Your task to perform on an android device: Search for sushi restaurants on Maps Image 0: 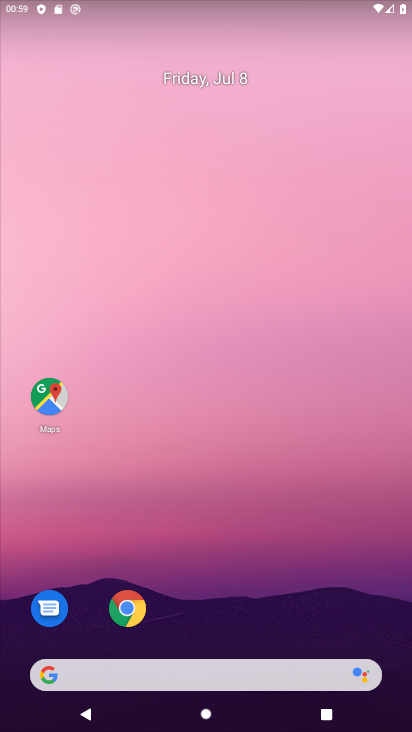
Step 0: press home button
Your task to perform on an android device: Search for sushi restaurants on Maps Image 1: 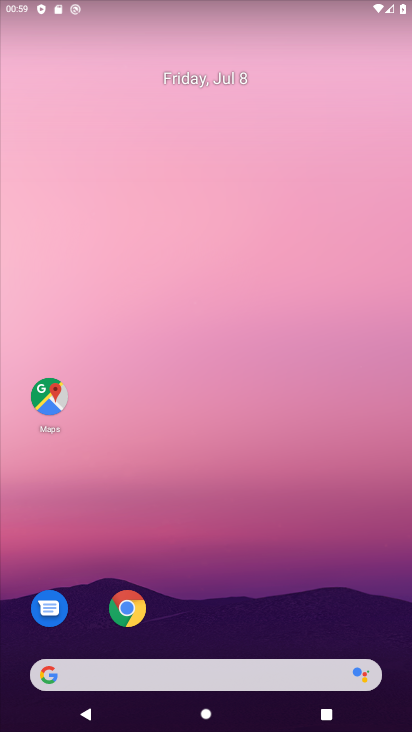
Step 1: drag from (257, 655) to (170, 105)
Your task to perform on an android device: Search for sushi restaurants on Maps Image 2: 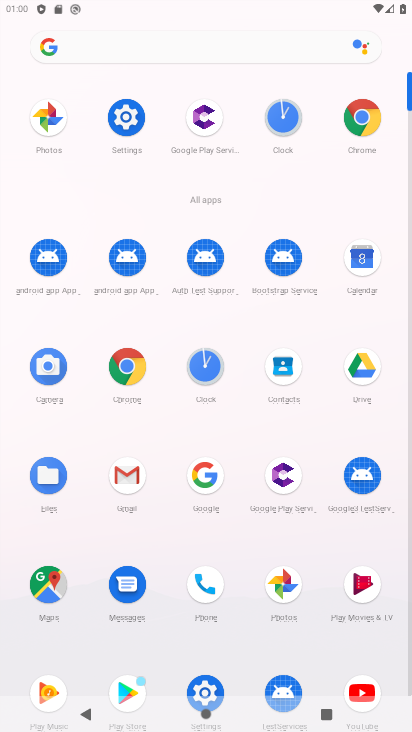
Step 2: click (41, 572)
Your task to perform on an android device: Search for sushi restaurants on Maps Image 3: 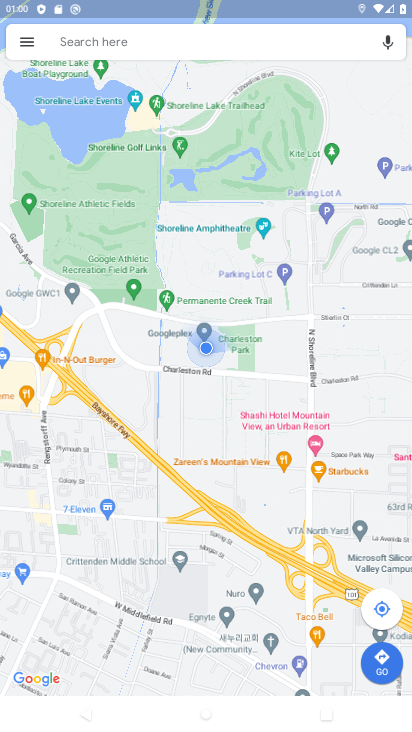
Step 3: click (181, 46)
Your task to perform on an android device: Search for sushi restaurants on Maps Image 4: 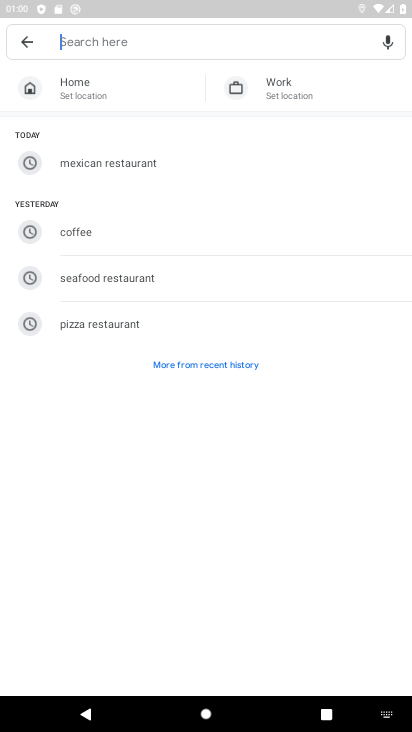
Step 4: type "sushi restaurants"
Your task to perform on an android device: Search for sushi restaurants on Maps Image 5: 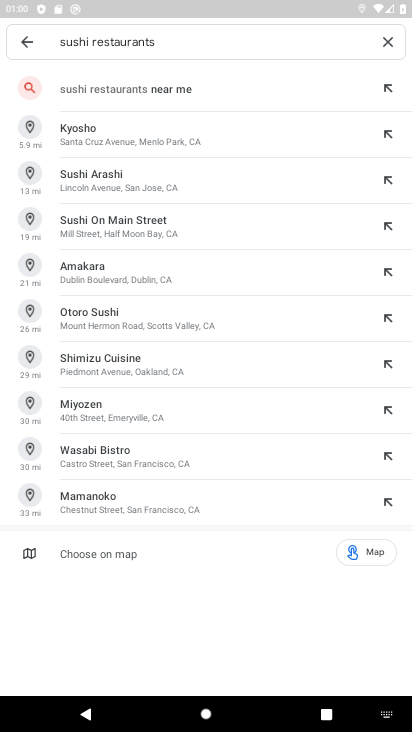
Step 5: click (133, 98)
Your task to perform on an android device: Search for sushi restaurants on Maps Image 6: 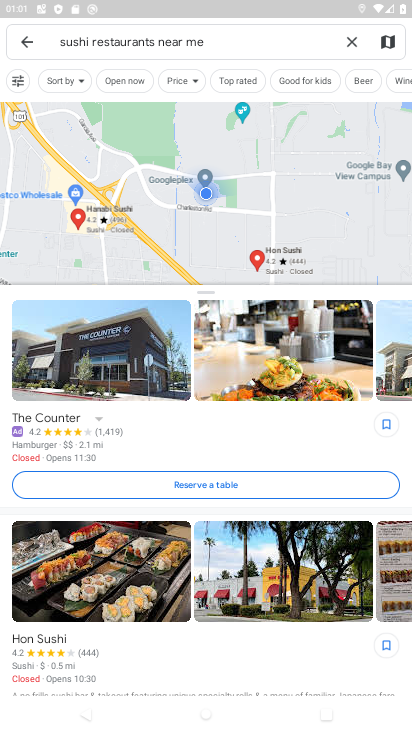
Step 6: task complete